Your task to perform on an android device: change notification settings in the gmail app Image 0: 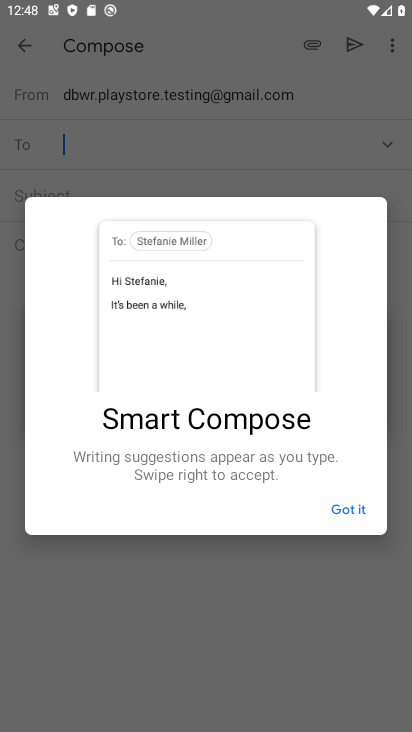
Step 0: click (346, 513)
Your task to perform on an android device: change notification settings in the gmail app Image 1: 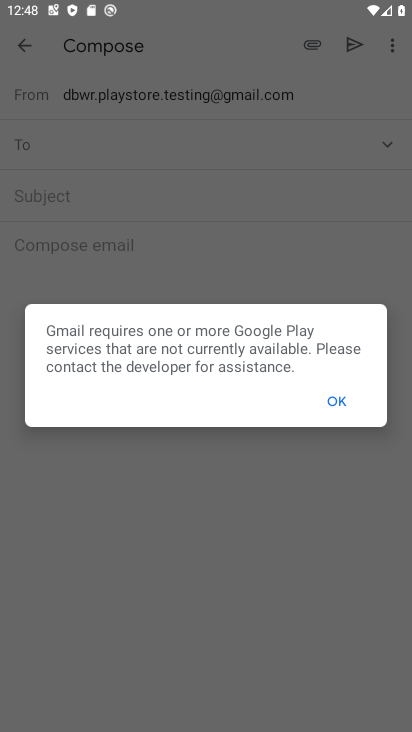
Step 1: click (341, 400)
Your task to perform on an android device: change notification settings in the gmail app Image 2: 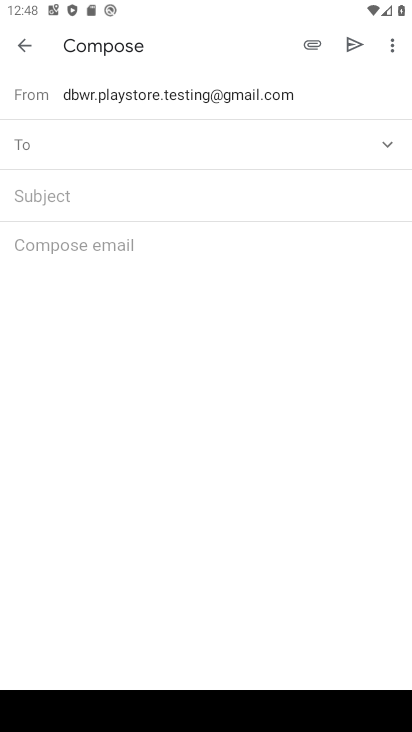
Step 2: press home button
Your task to perform on an android device: change notification settings in the gmail app Image 3: 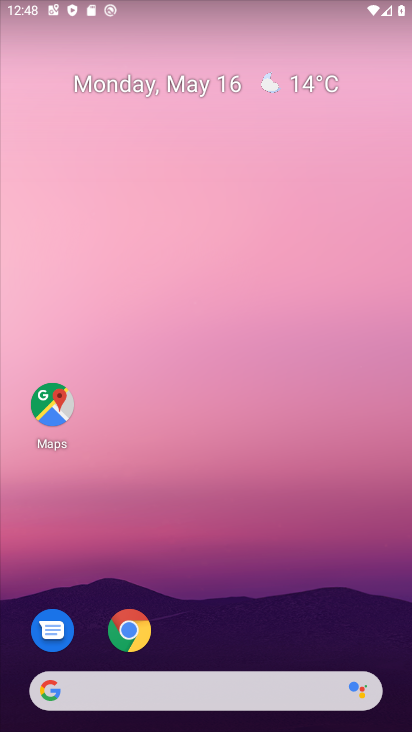
Step 3: drag from (293, 598) to (236, 1)
Your task to perform on an android device: change notification settings in the gmail app Image 4: 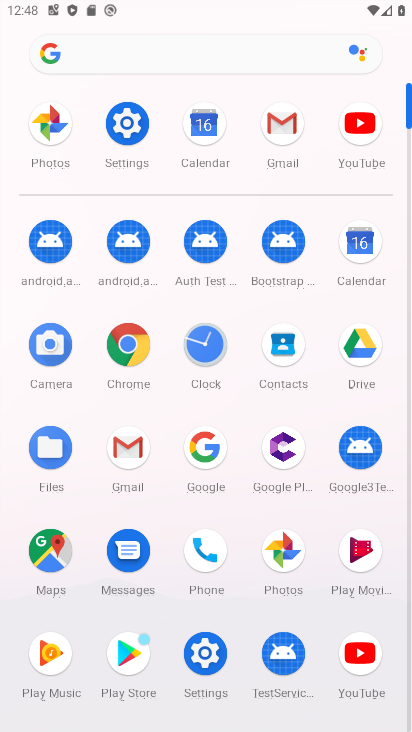
Step 4: click (293, 133)
Your task to perform on an android device: change notification settings in the gmail app Image 5: 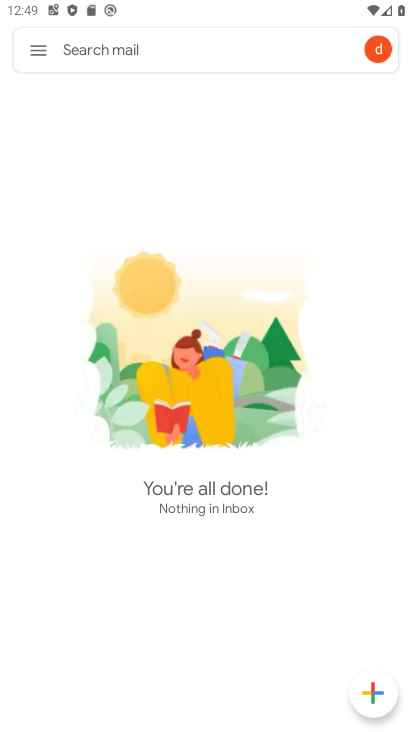
Step 5: click (45, 52)
Your task to perform on an android device: change notification settings in the gmail app Image 6: 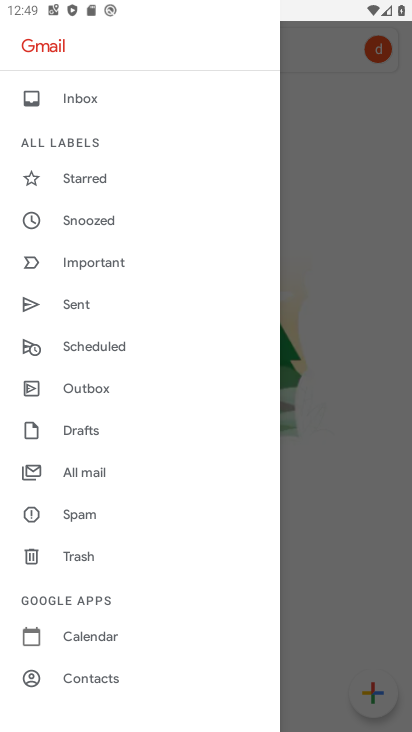
Step 6: drag from (104, 628) to (92, 257)
Your task to perform on an android device: change notification settings in the gmail app Image 7: 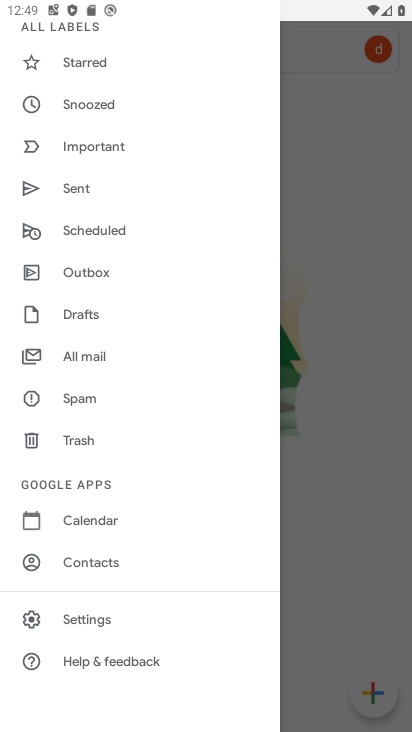
Step 7: click (98, 613)
Your task to perform on an android device: change notification settings in the gmail app Image 8: 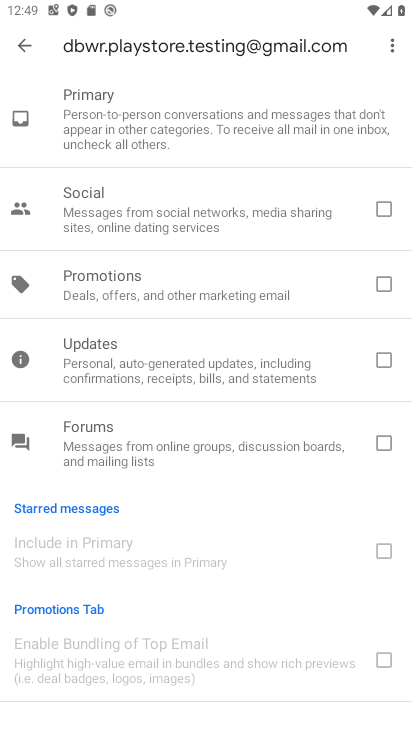
Step 8: click (30, 48)
Your task to perform on an android device: change notification settings in the gmail app Image 9: 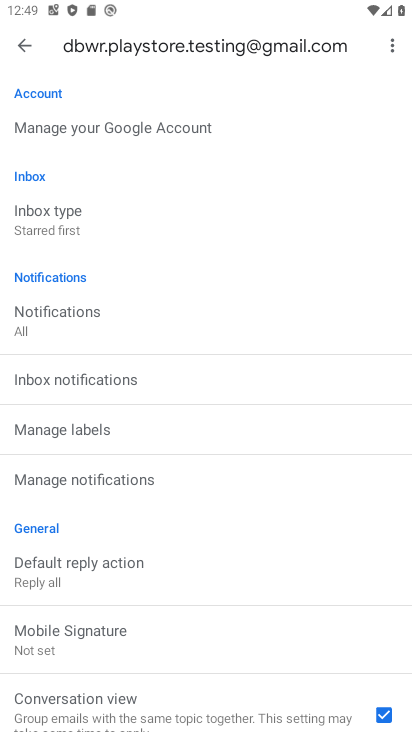
Step 9: click (107, 472)
Your task to perform on an android device: change notification settings in the gmail app Image 10: 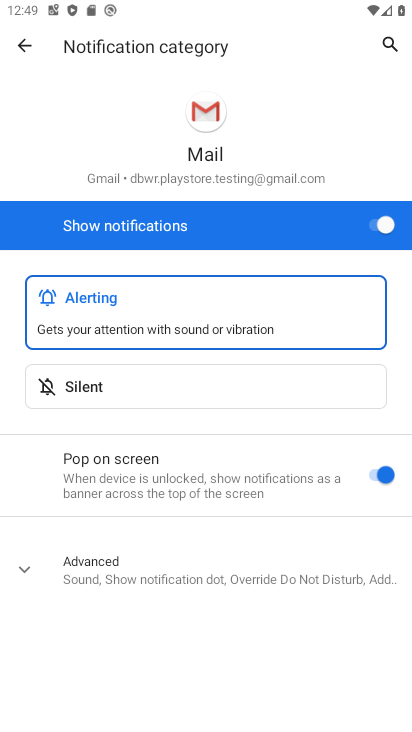
Step 10: click (303, 597)
Your task to perform on an android device: change notification settings in the gmail app Image 11: 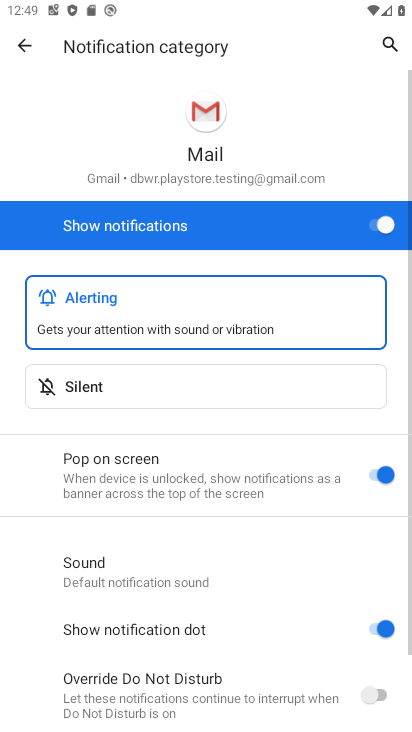
Step 11: click (371, 698)
Your task to perform on an android device: change notification settings in the gmail app Image 12: 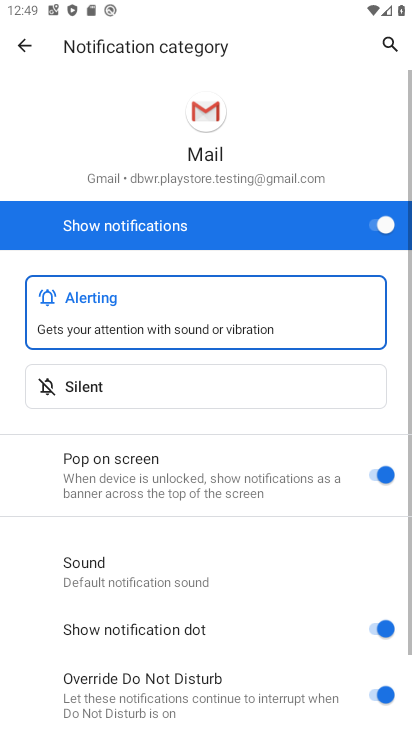
Step 12: click (384, 631)
Your task to perform on an android device: change notification settings in the gmail app Image 13: 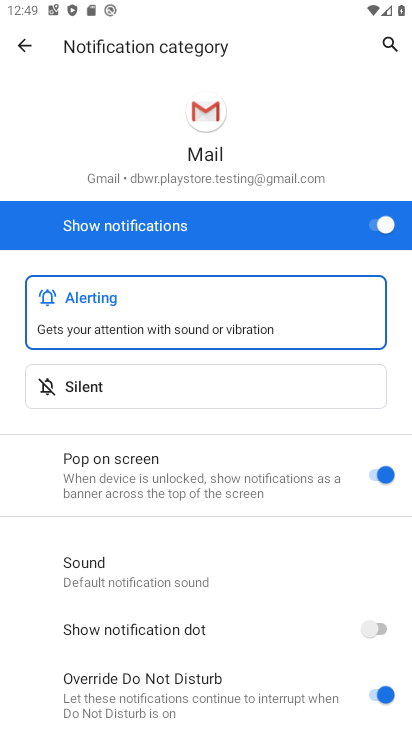
Step 13: task complete